Your task to perform on an android device: Show me the alarms in the clock app Image 0: 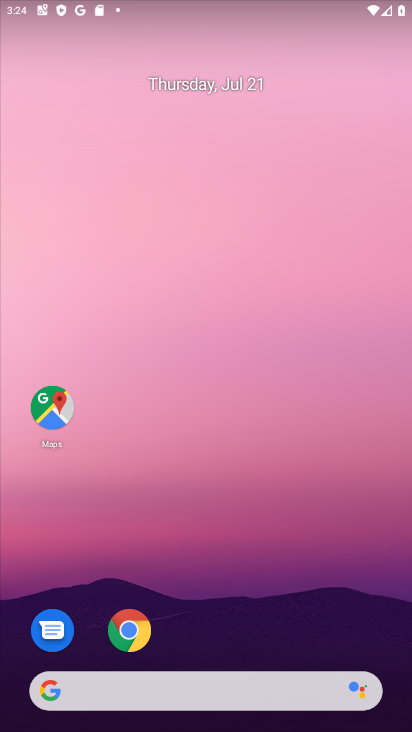
Step 0: drag from (293, 516) to (217, 9)
Your task to perform on an android device: Show me the alarms in the clock app Image 1: 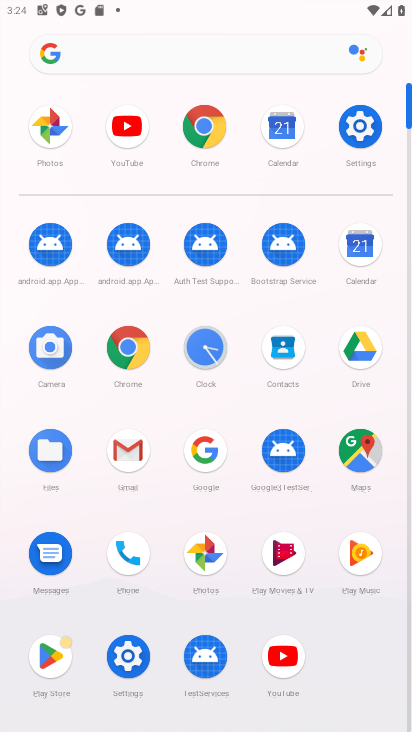
Step 1: click (211, 346)
Your task to perform on an android device: Show me the alarms in the clock app Image 2: 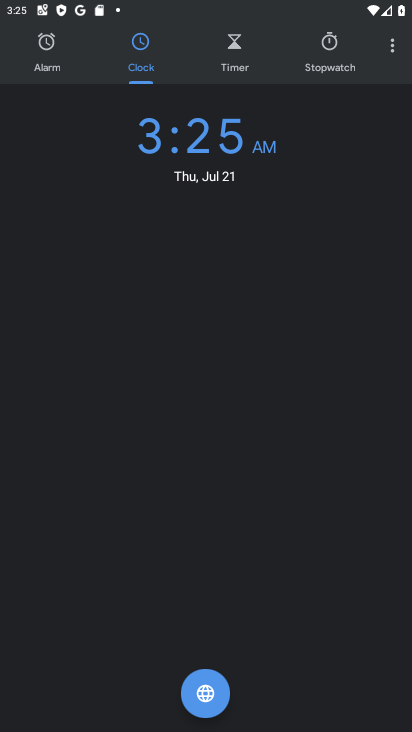
Step 2: click (52, 60)
Your task to perform on an android device: Show me the alarms in the clock app Image 3: 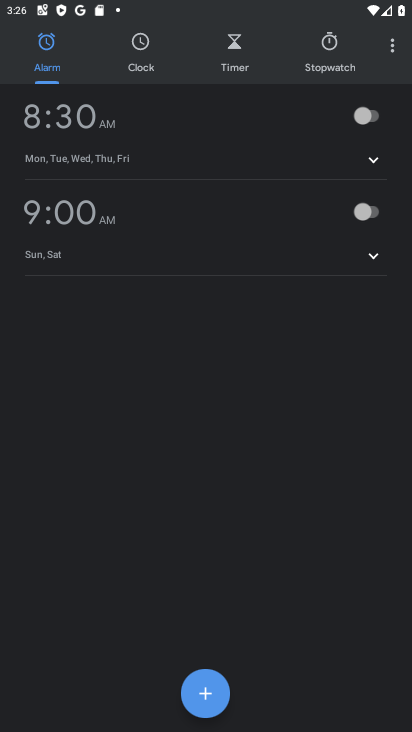
Step 3: task complete